Your task to perform on an android device: Open battery settings Image 0: 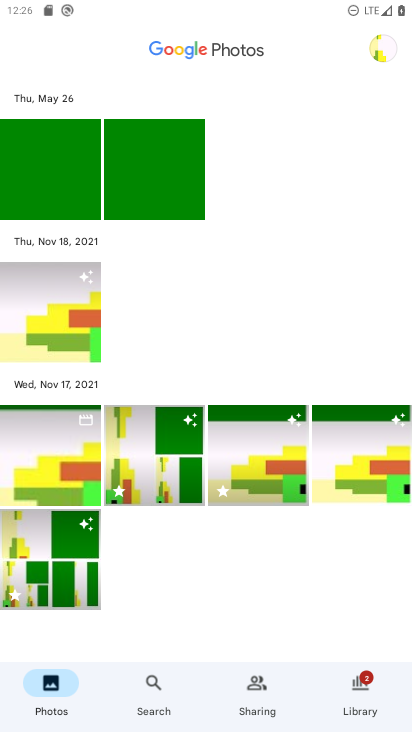
Step 0: press home button
Your task to perform on an android device: Open battery settings Image 1: 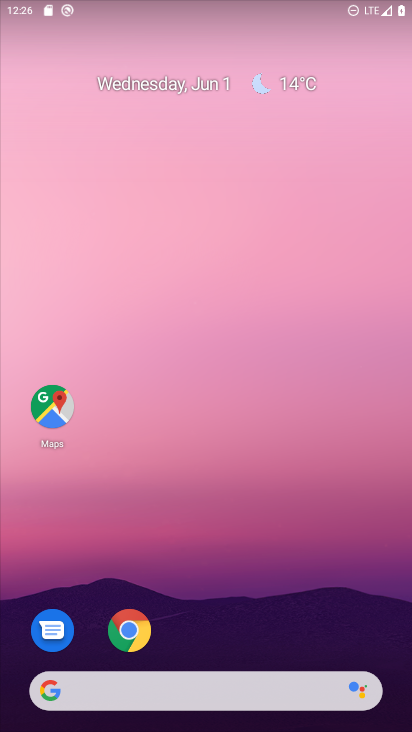
Step 1: drag from (314, 563) to (307, 81)
Your task to perform on an android device: Open battery settings Image 2: 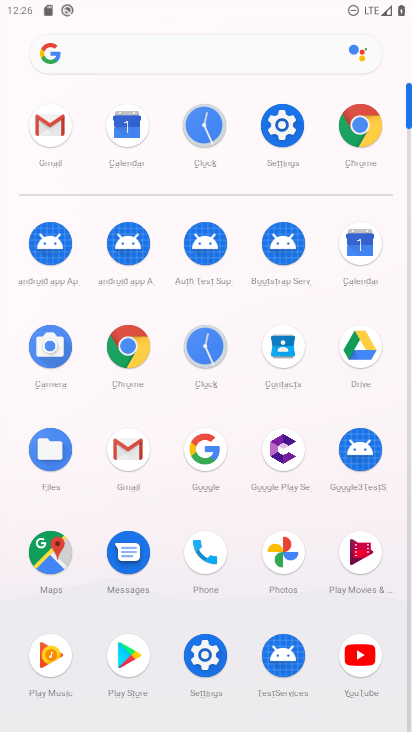
Step 2: click (274, 128)
Your task to perform on an android device: Open battery settings Image 3: 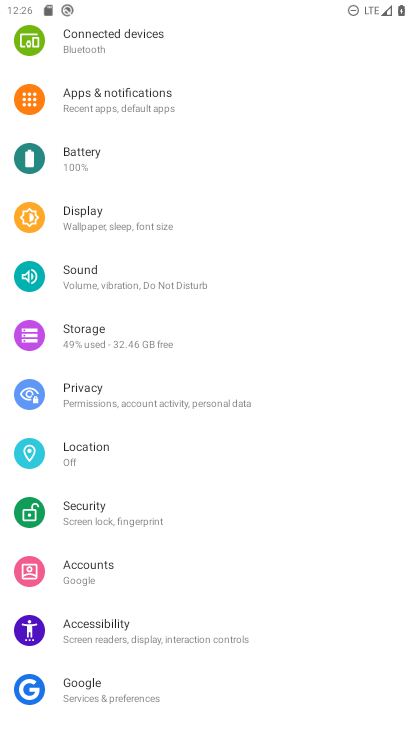
Step 3: click (75, 157)
Your task to perform on an android device: Open battery settings Image 4: 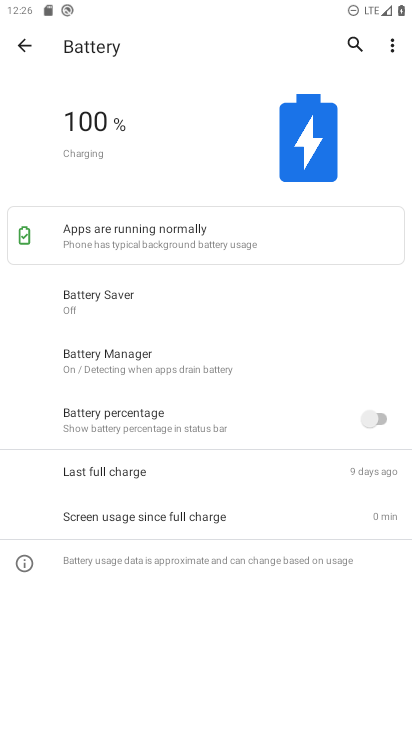
Step 4: task complete